Your task to perform on an android device: Open Chrome and go to settings Image 0: 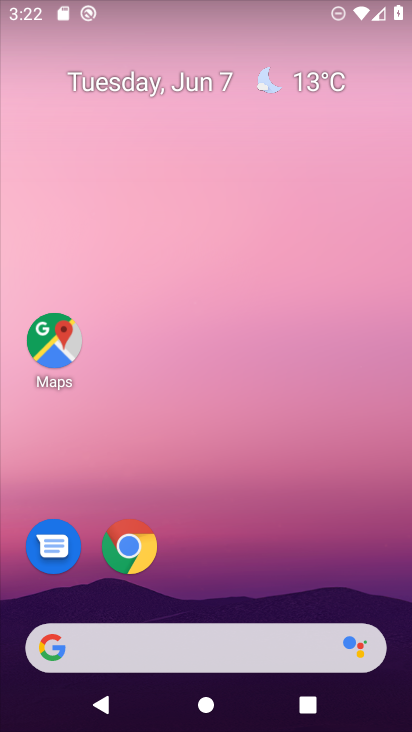
Step 0: click (120, 545)
Your task to perform on an android device: Open Chrome and go to settings Image 1: 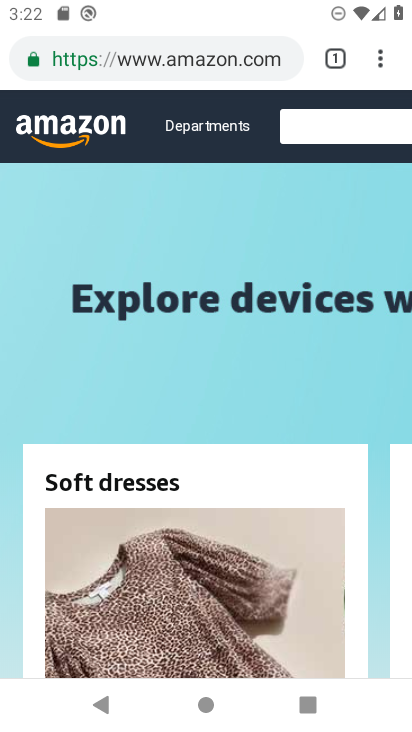
Step 1: click (378, 66)
Your task to perform on an android device: Open Chrome and go to settings Image 2: 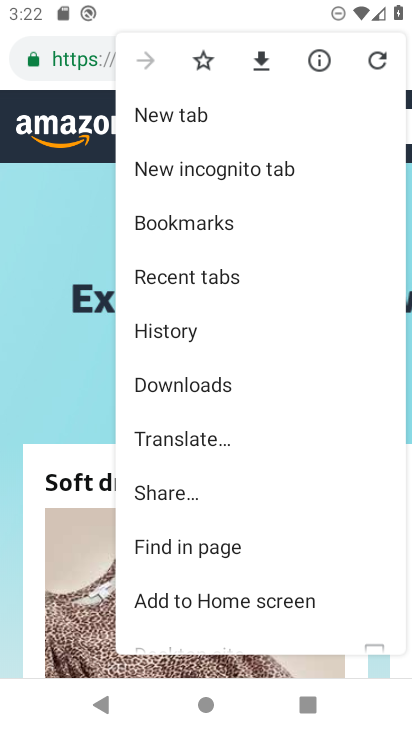
Step 2: drag from (16, 646) to (360, 193)
Your task to perform on an android device: Open Chrome and go to settings Image 3: 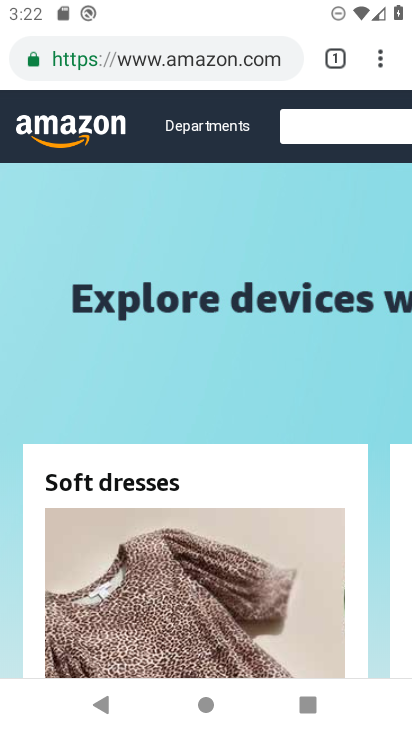
Step 3: click (387, 58)
Your task to perform on an android device: Open Chrome and go to settings Image 4: 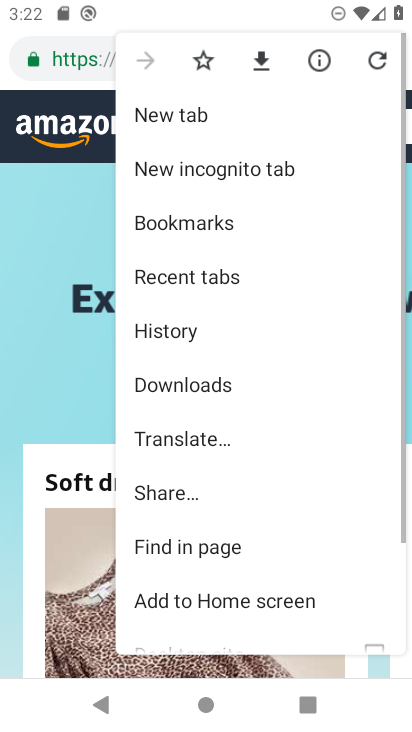
Step 4: drag from (240, 569) to (405, 127)
Your task to perform on an android device: Open Chrome and go to settings Image 5: 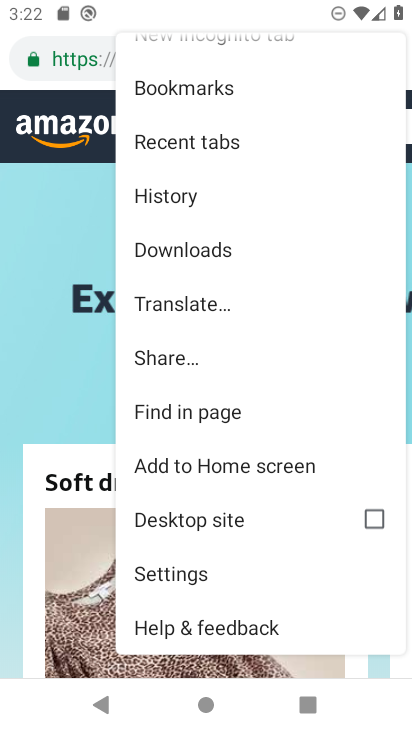
Step 5: click (148, 575)
Your task to perform on an android device: Open Chrome and go to settings Image 6: 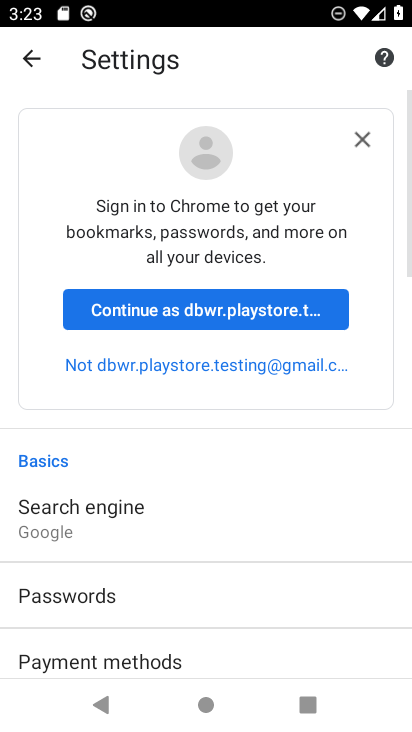
Step 6: task complete